Your task to perform on an android device: toggle airplane mode Image 0: 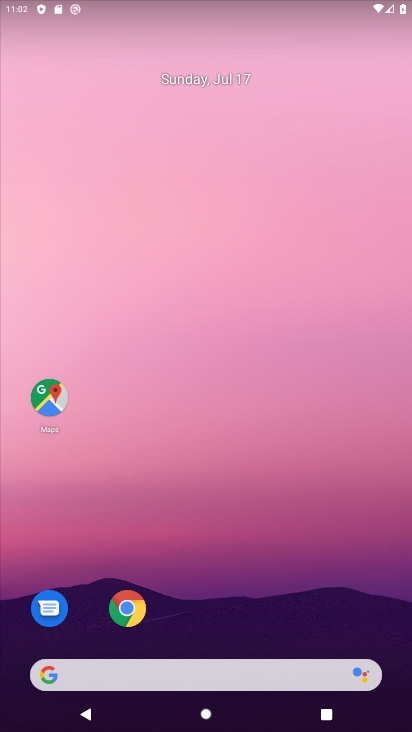
Step 0: drag from (296, 586) to (238, 126)
Your task to perform on an android device: toggle airplane mode Image 1: 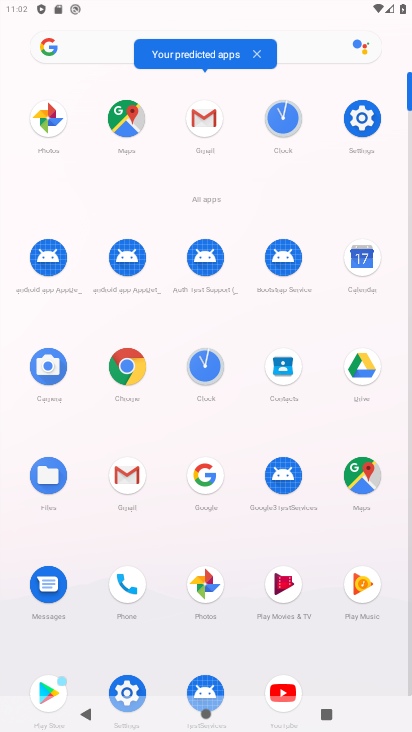
Step 1: click (354, 116)
Your task to perform on an android device: toggle airplane mode Image 2: 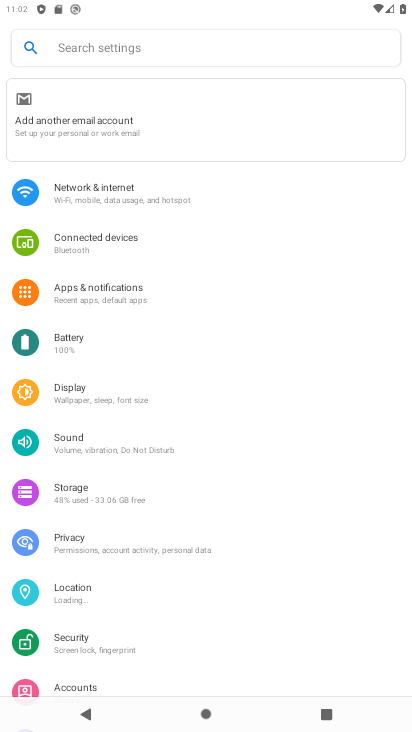
Step 2: click (109, 186)
Your task to perform on an android device: toggle airplane mode Image 3: 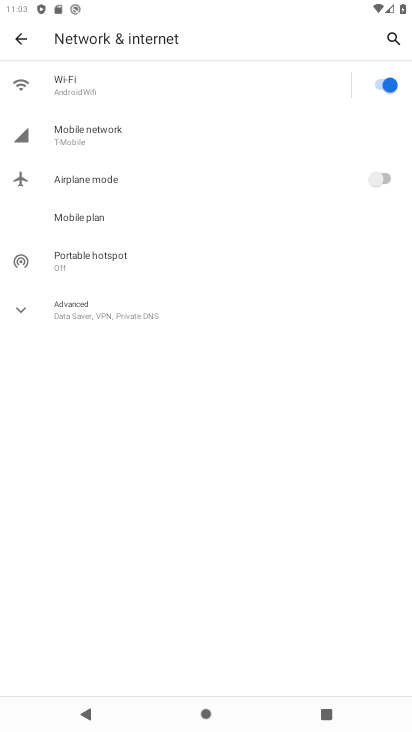
Step 3: click (388, 183)
Your task to perform on an android device: toggle airplane mode Image 4: 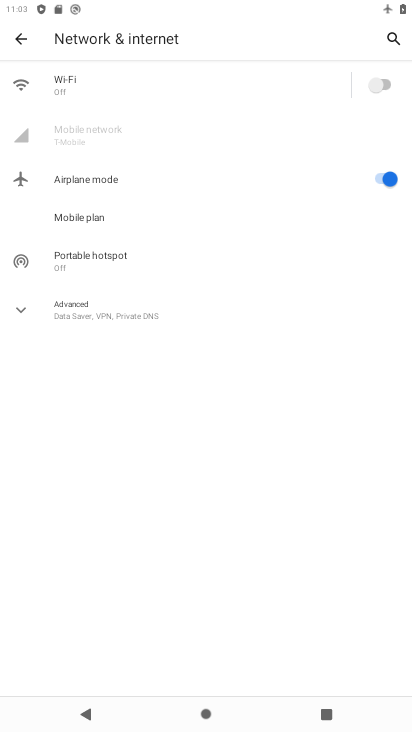
Step 4: task complete